Your task to perform on an android device: Open Reddit.com Image 0: 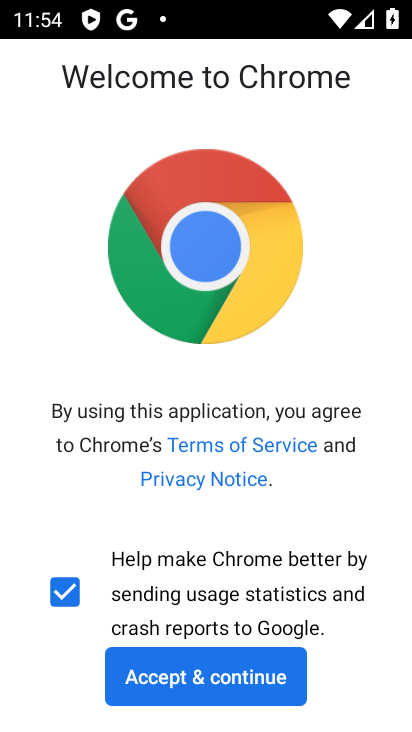
Step 0: press home button
Your task to perform on an android device: Open Reddit.com Image 1: 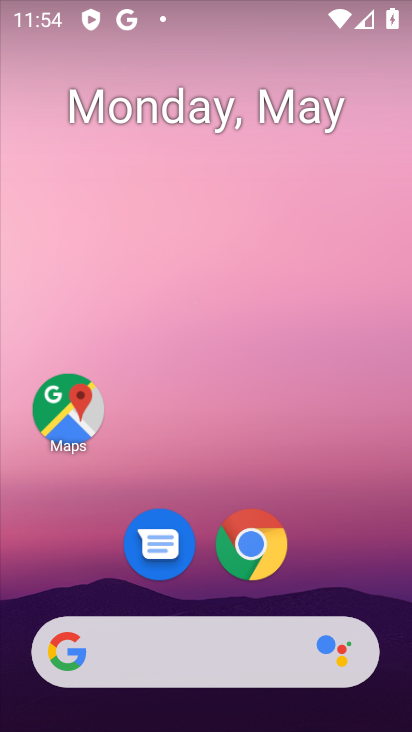
Step 1: click (239, 563)
Your task to perform on an android device: Open Reddit.com Image 2: 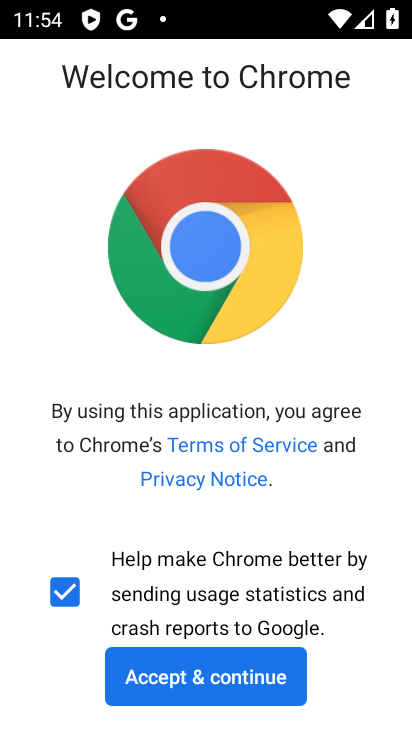
Step 2: click (238, 676)
Your task to perform on an android device: Open Reddit.com Image 3: 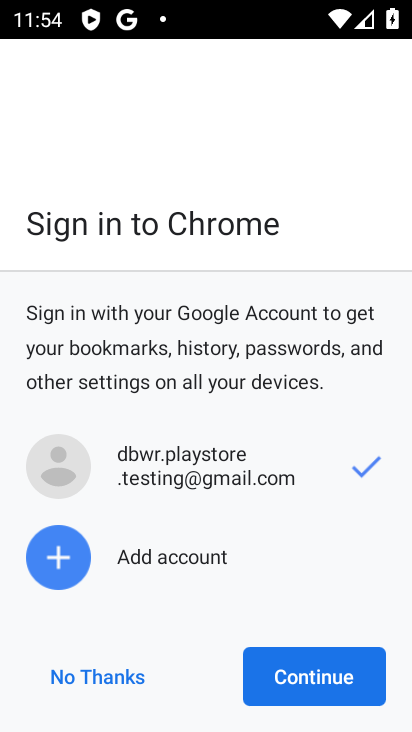
Step 3: click (282, 681)
Your task to perform on an android device: Open Reddit.com Image 4: 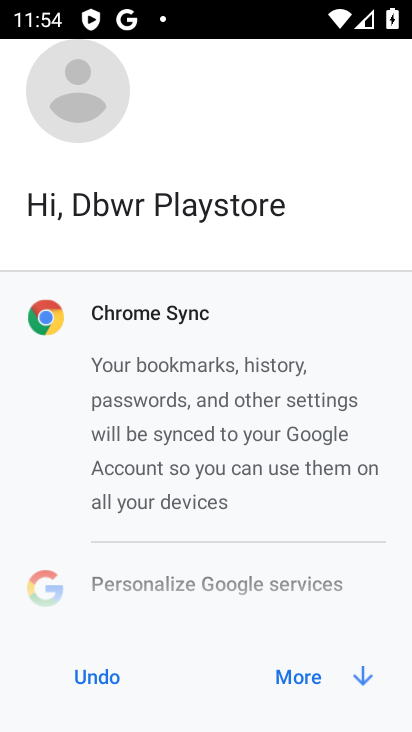
Step 4: click (302, 665)
Your task to perform on an android device: Open Reddit.com Image 5: 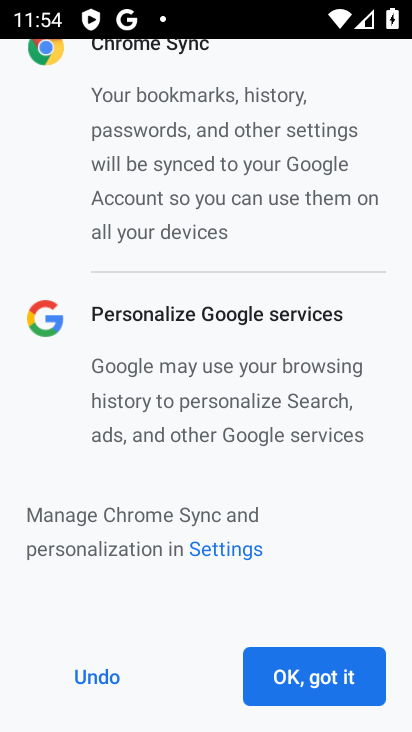
Step 5: click (275, 656)
Your task to perform on an android device: Open Reddit.com Image 6: 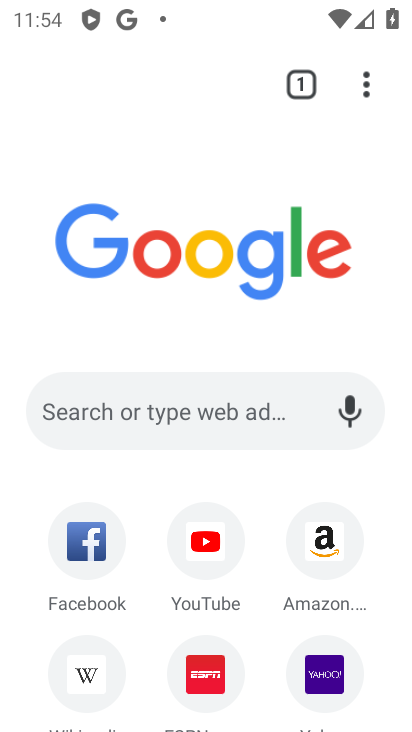
Step 6: click (177, 394)
Your task to perform on an android device: Open Reddit.com Image 7: 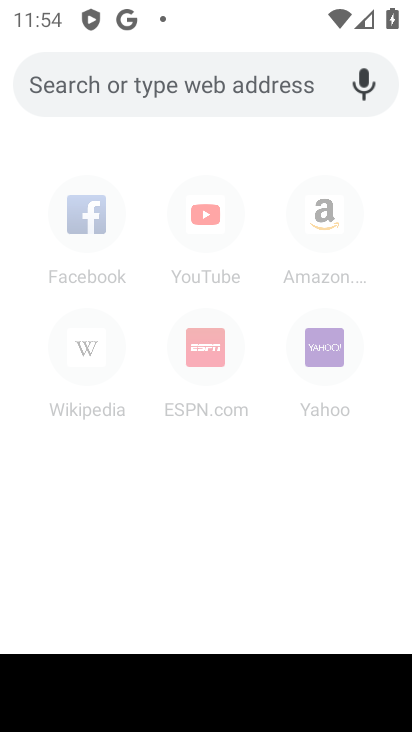
Step 7: type "Reddit.com"
Your task to perform on an android device: Open Reddit.com Image 8: 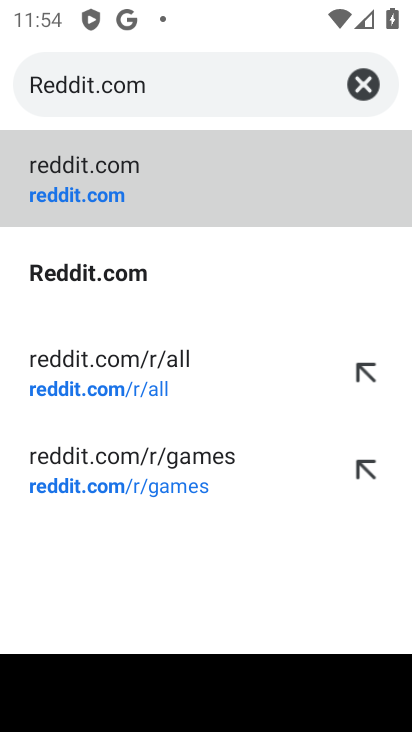
Step 8: click (219, 68)
Your task to perform on an android device: Open Reddit.com Image 9: 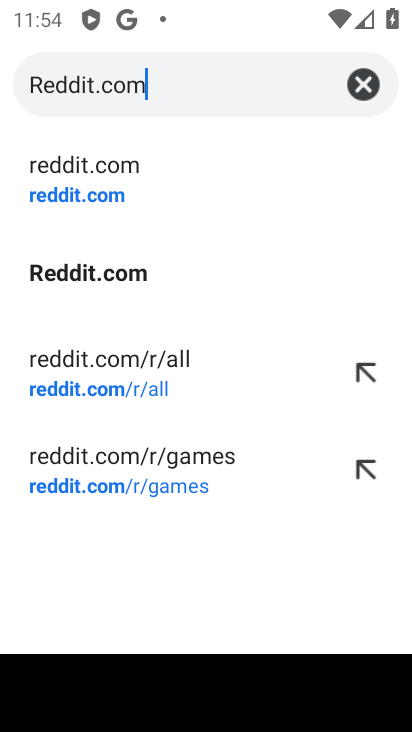
Step 9: click (140, 198)
Your task to perform on an android device: Open Reddit.com Image 10: 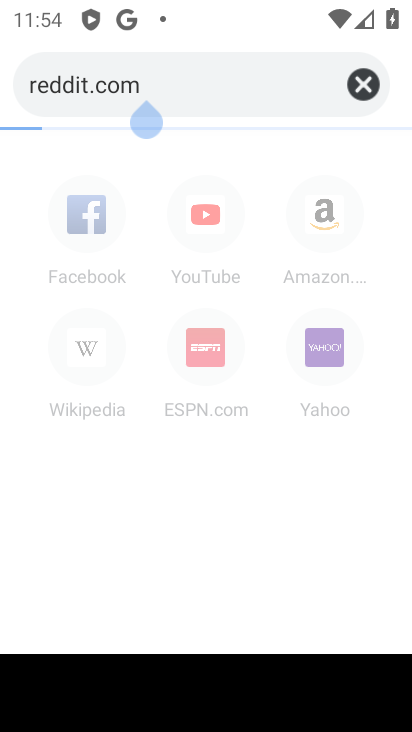
Step 10: click (141, 174)
Your task to perform on an android device: Open Reddit.com Image 11: 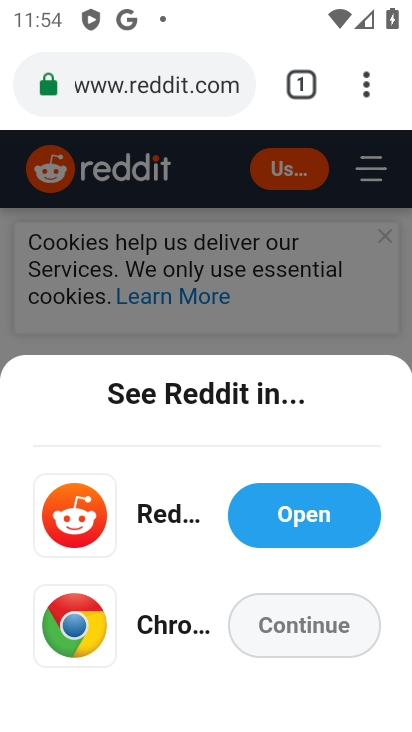
Step 11: click (285, 621)
Your task to perform on an android device: Open Reddit.com Image 12: 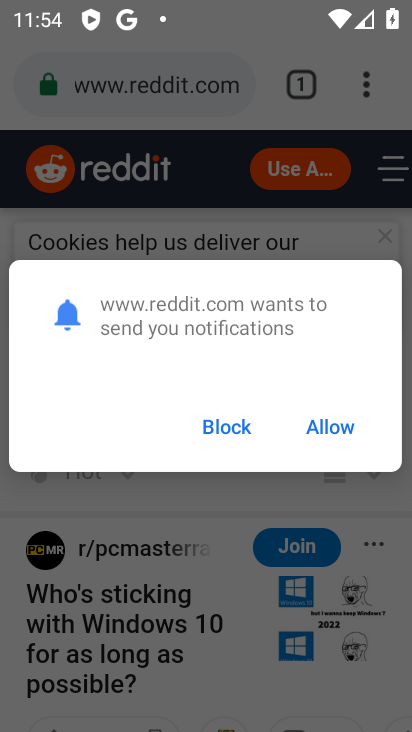
Step 12: click (327, 422)
Your task to perform on an android device: Open Reddit.com Image 13: 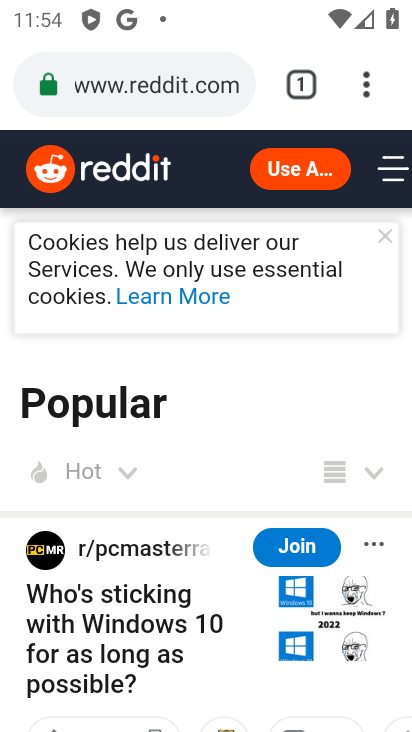
Step 13: task complete